Your task to perform on an android device: What is the news today? Image 0: 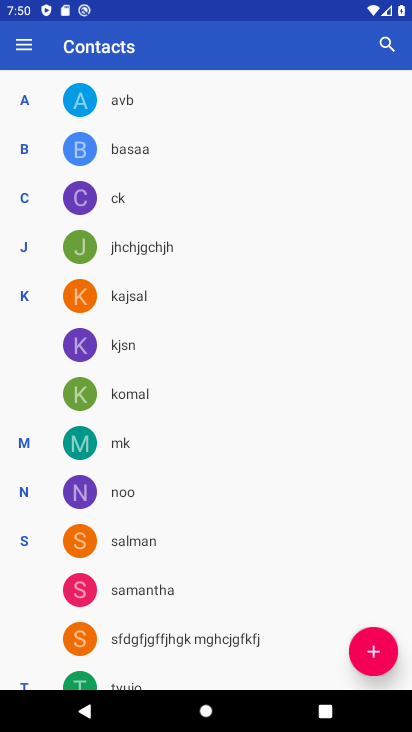
Step 0: press home button
Your task to perform on an android device: What is the news today? Image 1: 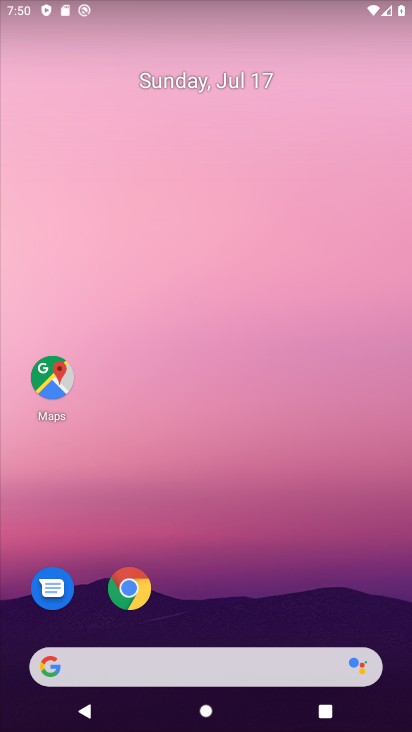
Step 1: drag from (234, 616) to (266, 96)
Your task to perform on an android device: What is the news today? Image 2: 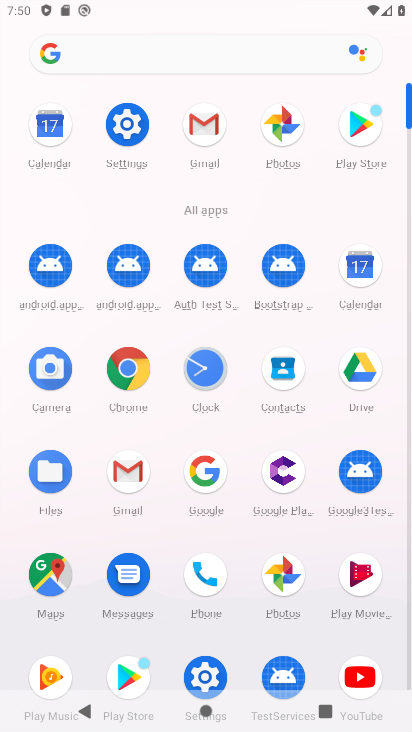
Step 2: click (190, 68)
Your task to perform on an android device: What is the news today? Image 3: 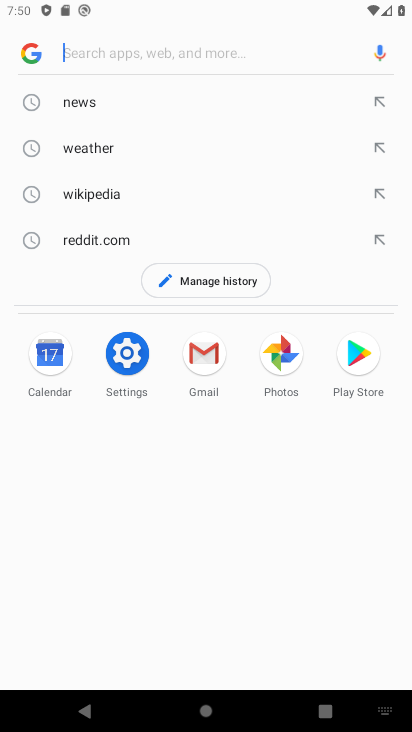
Step 3: click (199, 108)
Your task to perform on an android device: What is the news today? Image 4: 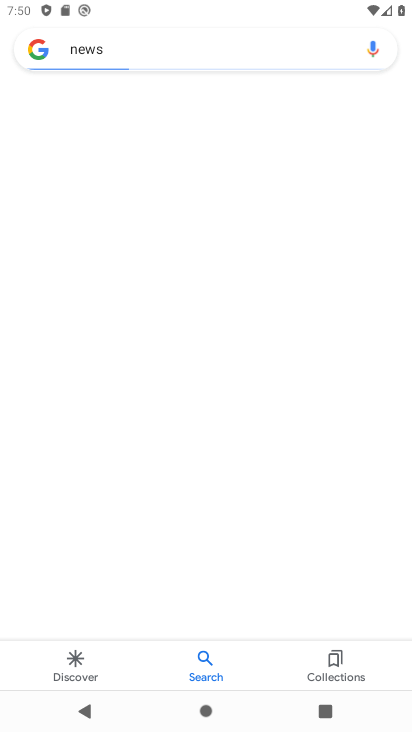
Step 4: task complete